Your task to perform on an android device: add a contact Image 0: 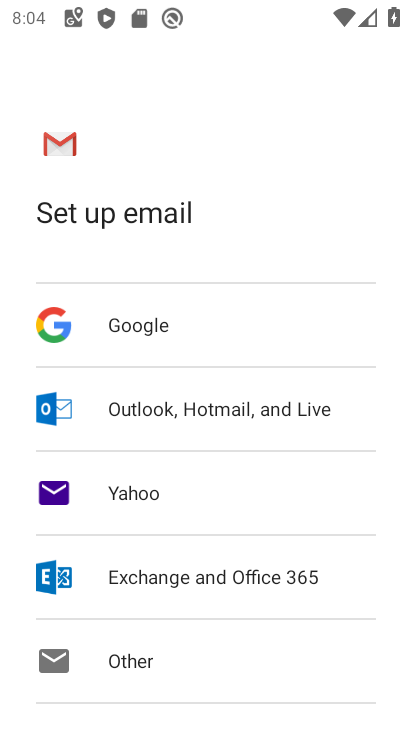
Step 0: press home button
Your task to perform on an android device: add a contact Image 1: 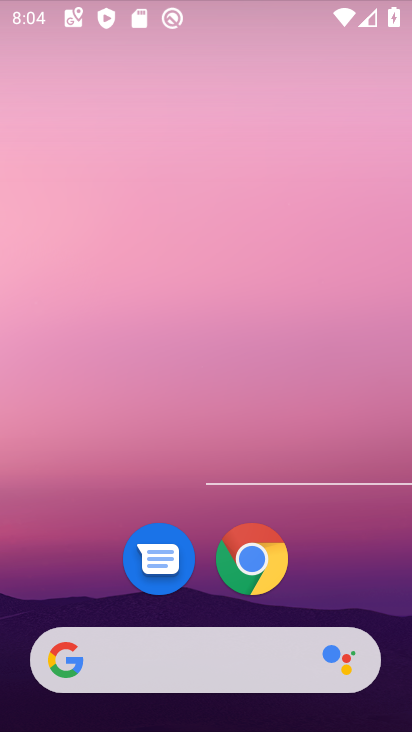
Step 1: drag from (205, 615) to (155, 93)
Your task to perform on an android device: add a contact Image 2: 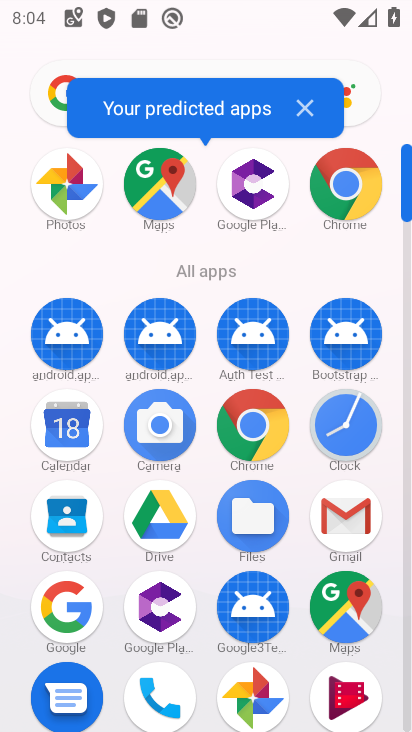
Step 2: click (158, 685)
Your task to perform on an android device: add a contact Image 3: 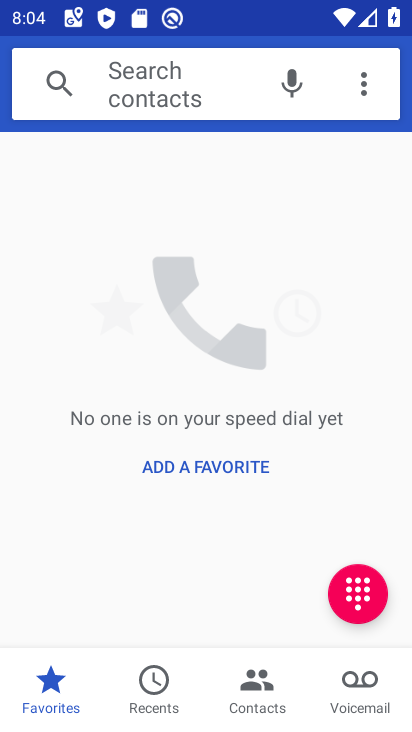
Step 3: click (242, 679)
Your task to perform on an android device: add a contact Image 4: 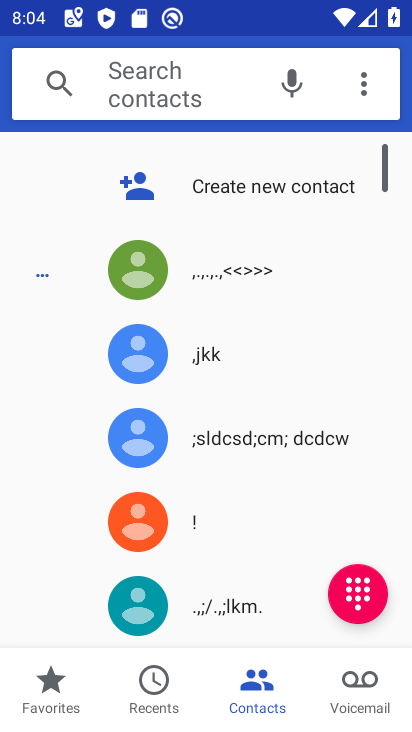
Step 4: click (187, 193)
Your task to perform on an android device: add a contact Image 5: 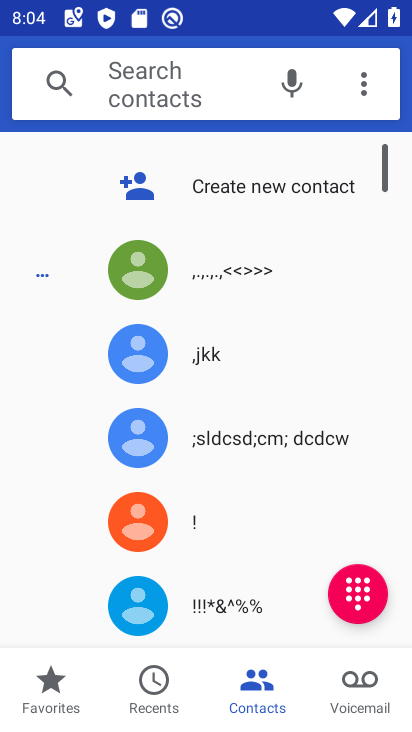
Step 5: click (229, 176)
Your task to perform on an android device: add a contact Image 6: 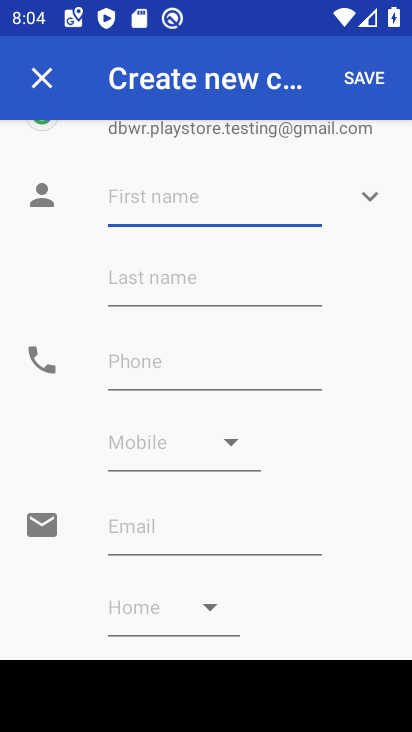
Step 6: type "mj"
Your task to perform on an android device: add a contact Image 7: 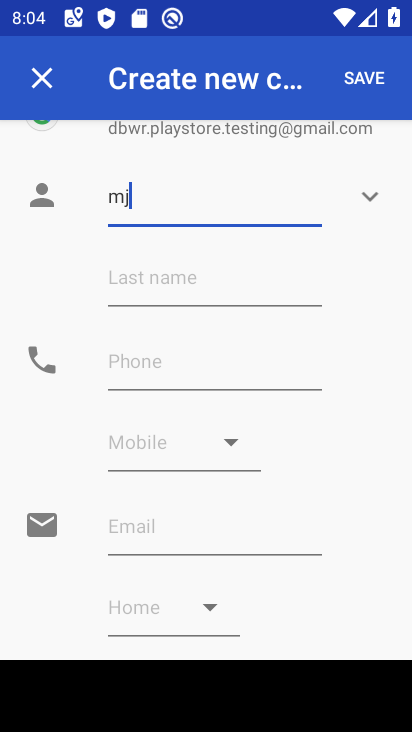
Step 7: type ""
Your task to perform on an android device: add a contact Image 8: 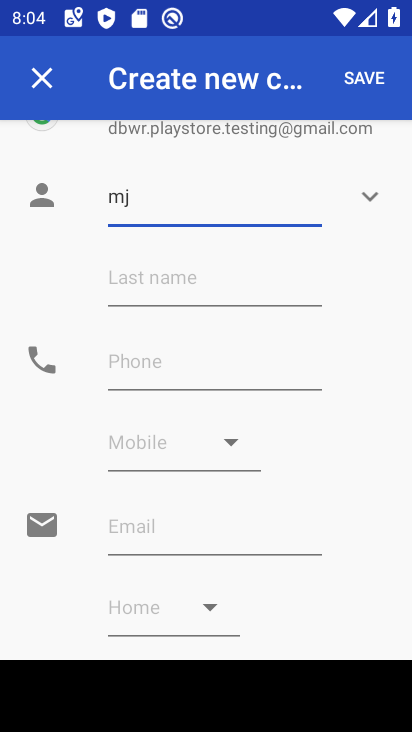
Step 8: click (133, 375)
Your task to perform on an android device: add a contact Image 9: 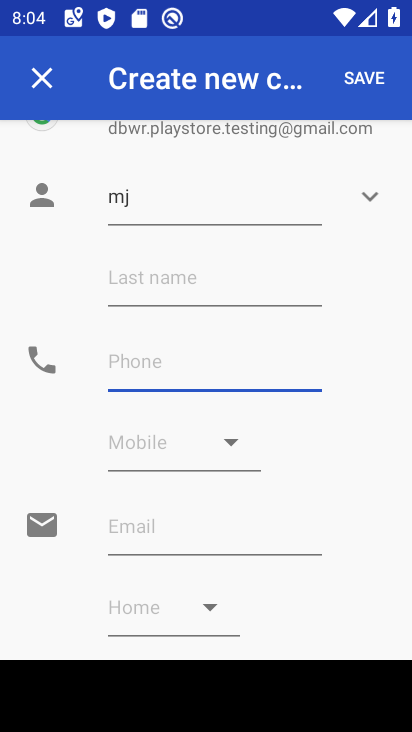
Step 9: type "656"
Your task to perform on an android device: add a contact Image 10: 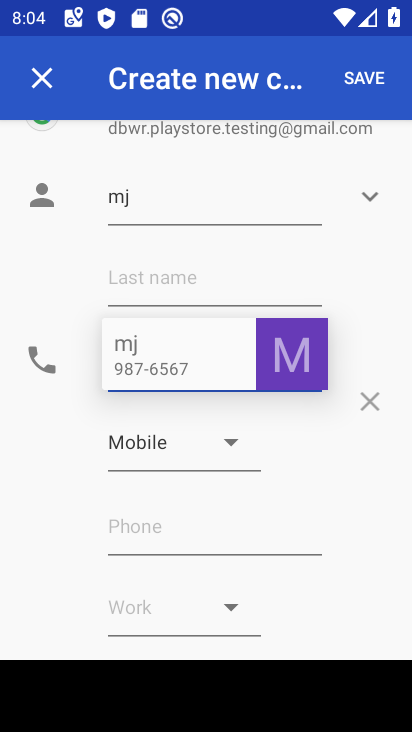
Step 10: click (371, 82)
Your task to perform on an android device: add a contact Image 11: 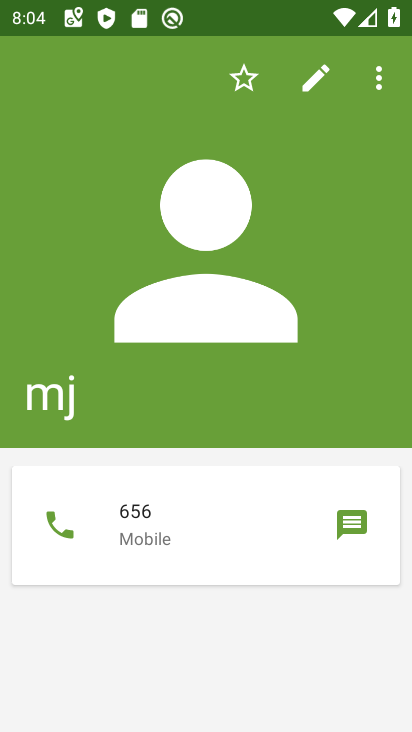
Step 11: task complete